Your task to perform on an android device: check the backup settings in the google photos Image 0: 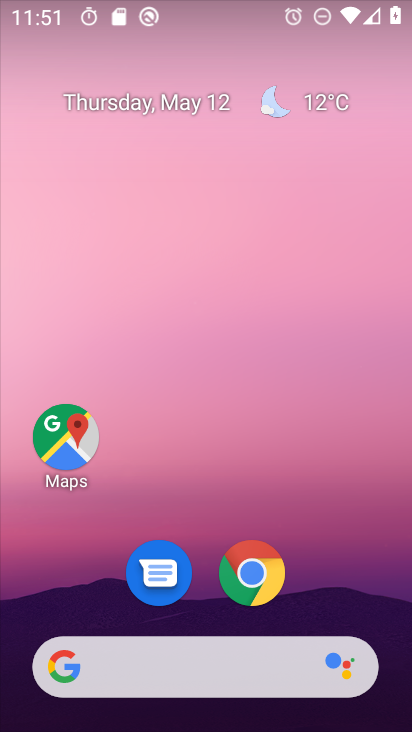
Step 0: drag from (398, 682) to (404, 429)
Your task to perform on an android device: check the backup settings in the google photos Image 1: 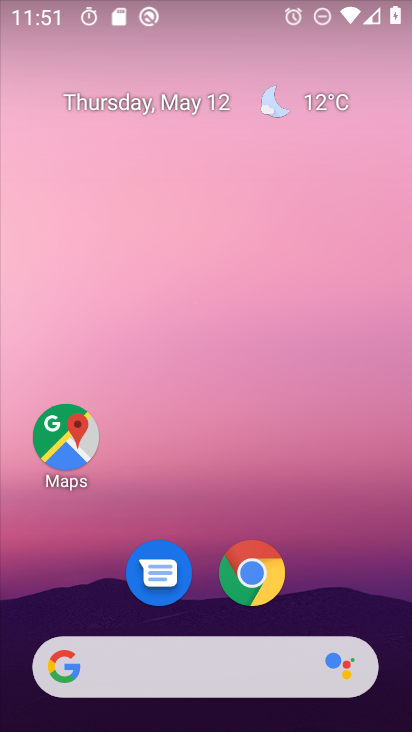
Step 1: drag from (398, 654) to (366, 252)
Your task to perform on an android device: check the backup settings in the google photos Image 2: 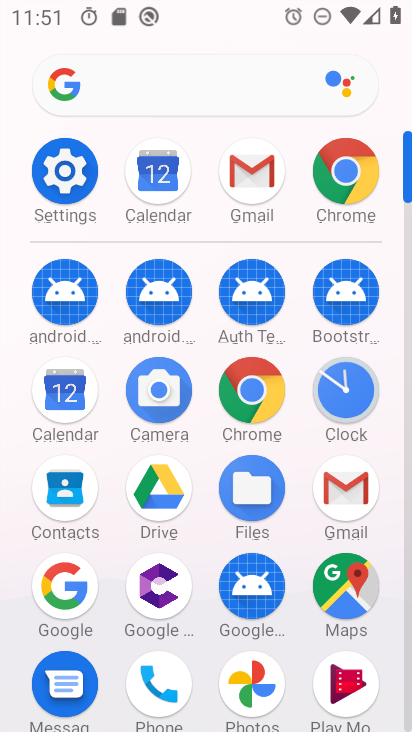
Step 2: click (243, 689)
Your task to perform on an android device: check the backup settings in the google photos Image 3: 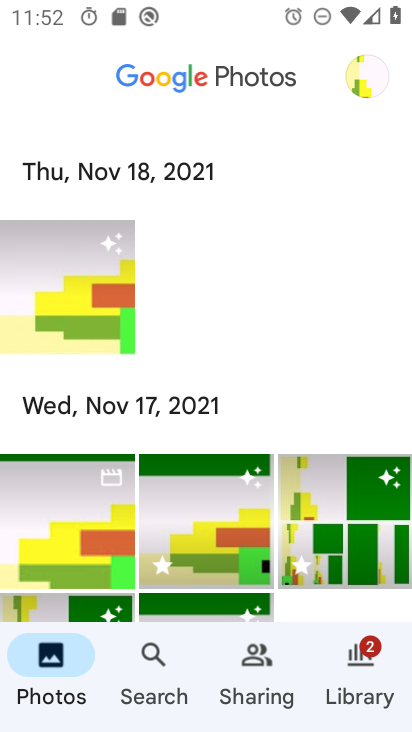
Step 3: click (362, 64)
Your task to perform on an android device: check the backup settings in the google photos Image 4: 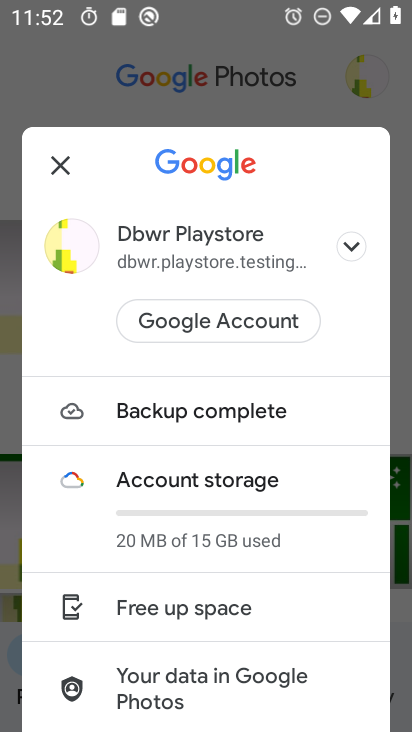
Step 4: click (54, 159)
Your task to perform on an android device: check the backup settings in the google photos Image 5: 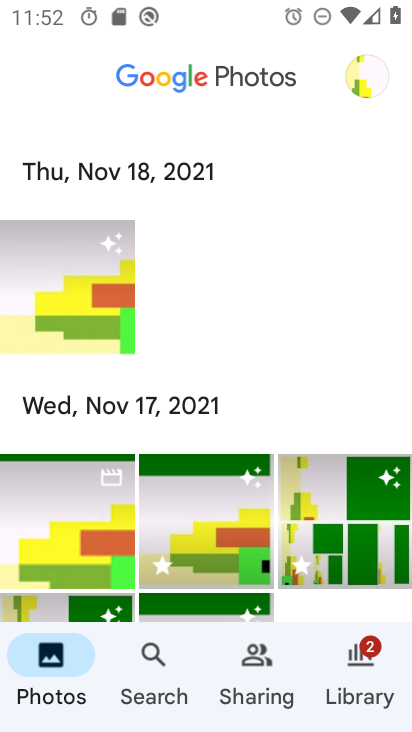
Step 5: task complete